Your task to perform on an android device: turn off airplane mode Image 0: 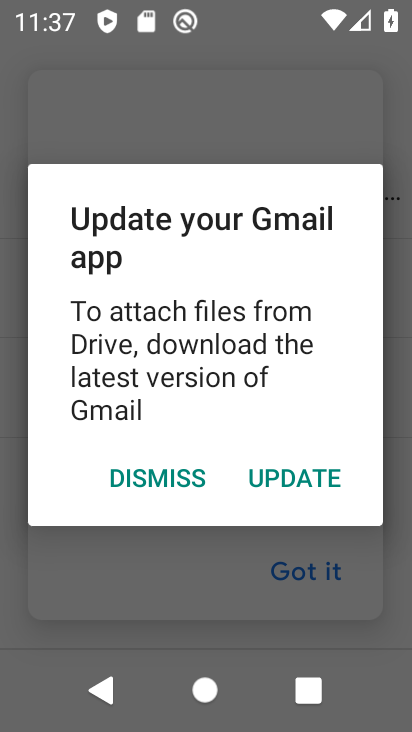
Step 0: press home button
Your task to perform on an android device: turn off airplane mode Image 1: 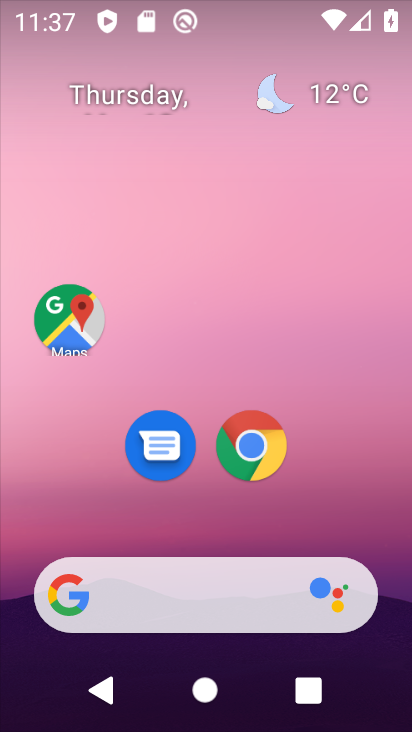
Step 1: drag from (215, 588) to (126, 65)
Your task to perform on an android device: turn off airplane mode Image 2: 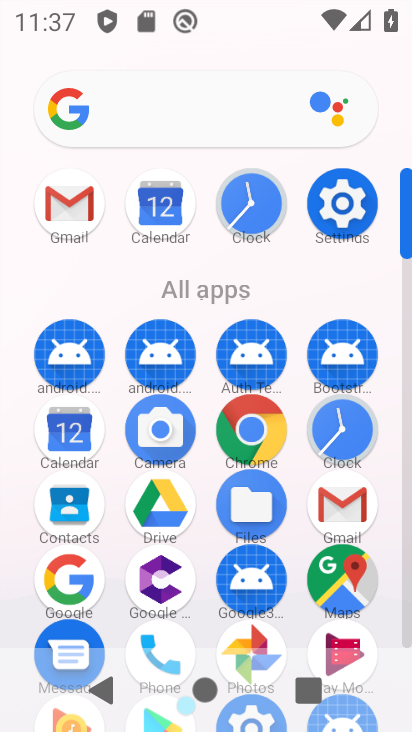
Step 2: click (330, 226)
Your task to perform on an android device: turn off airplane mode Image 3: 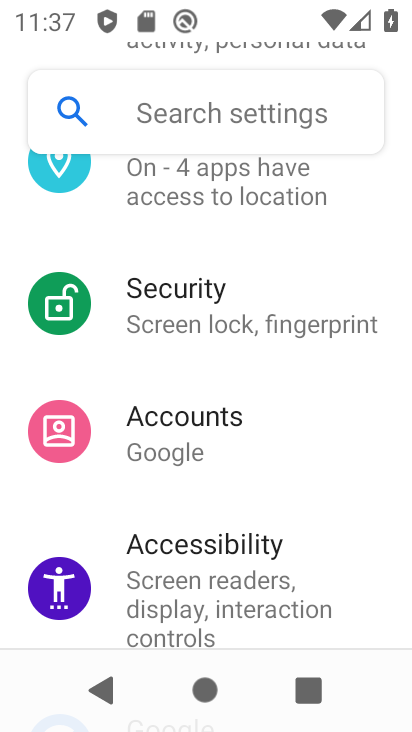
Step 3: drag from (207, 228) to (216, 678)
Your task to perform on an android device: turn off airplane mode Image 4: 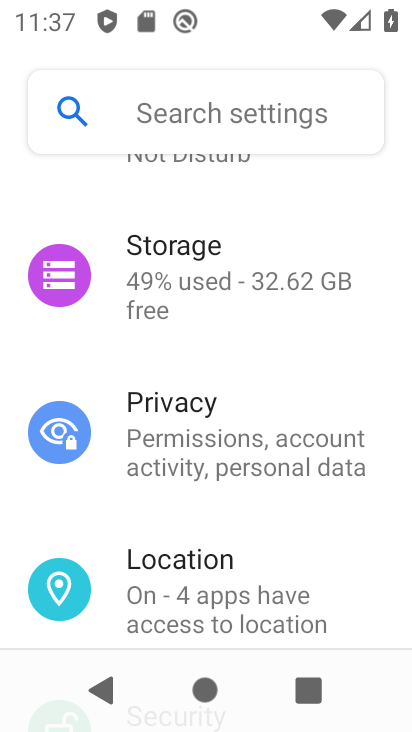
Step 4: drag from (197, 259) to (175, 690)
Your task to perform on an android device: turn off airplane mode Image 5: 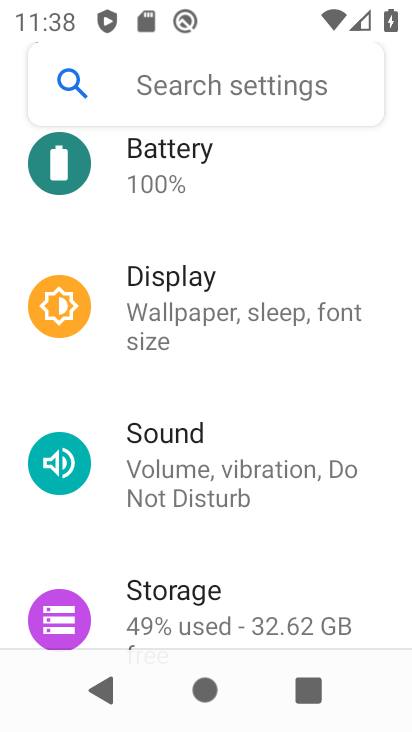
Step 5: drag from (207, 233) to (174, 702)
Your task to perform on an android device: turn off airplane mode Image 6: 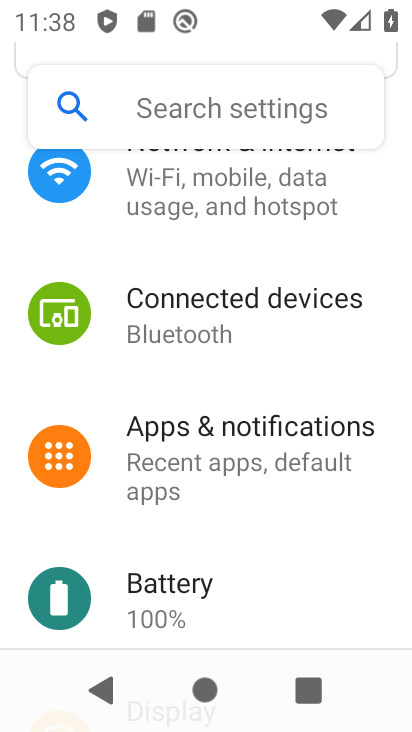
Step 6: drag from (193, 251) to (263, 730)
Your task to perform on an android device: turn off airplane mode Image 7: 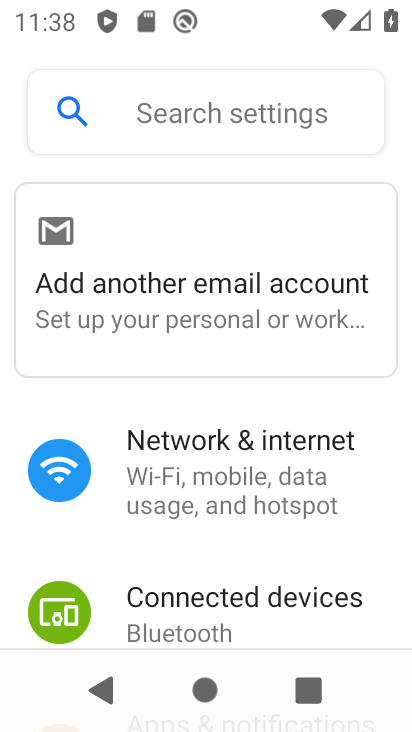
Step 7: click (189, 479)
Your task to perform on an android device: turn off airplane mode Image 8: 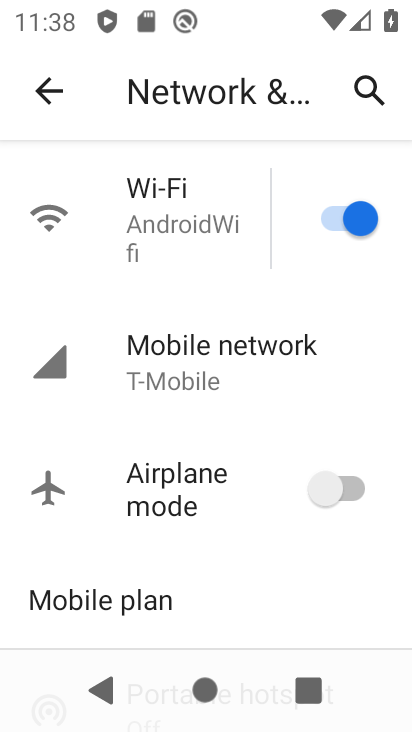
Step 8: task complete